Your task to perform on an android device: allow notifications from all sites in the chrome app Image 0: 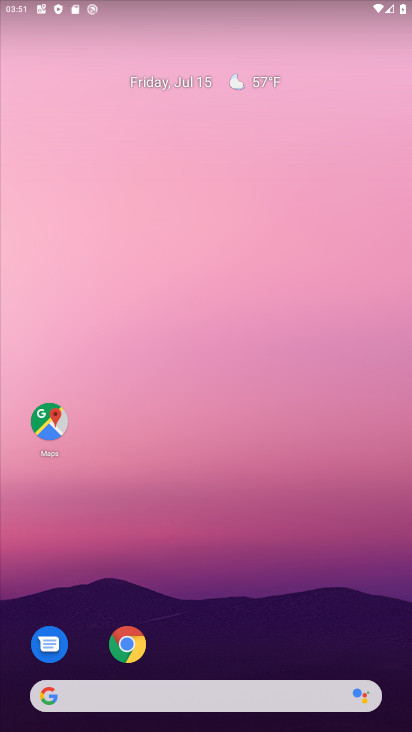
Step 0: drag from (316, 625) to (266, 114)
Your task to perform on an android device: allow notifications from all sites in the chrome app Image 1: 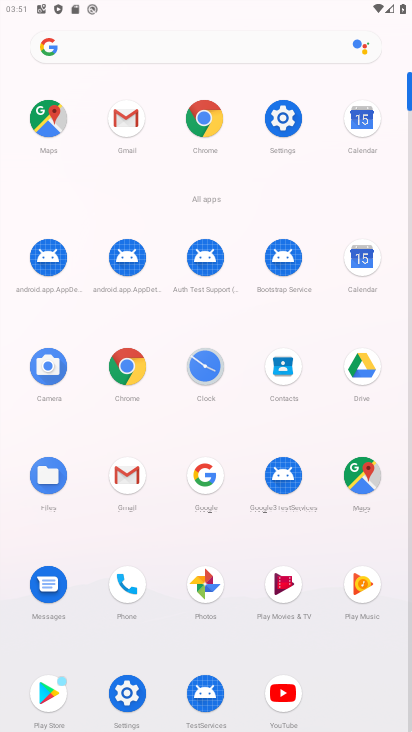
Step 1: click (204, 112)
Your task to perform on an android device: allow notifications from all sites in the chrome app Image 2: 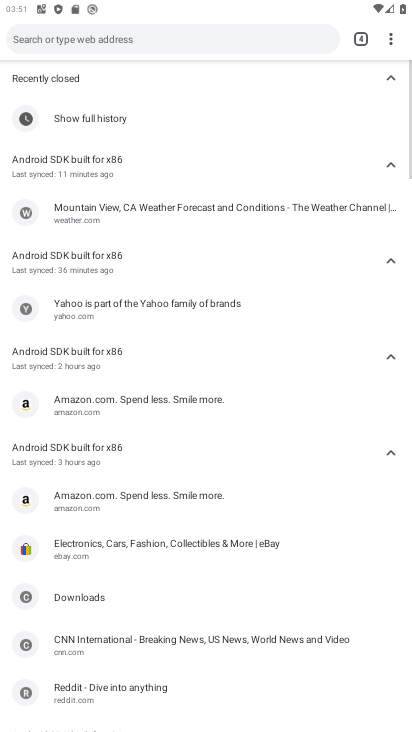
Step 2: click (392, 43)
Your task to perform on an android device: allow notifications from all sites in the chrome app Image 3: 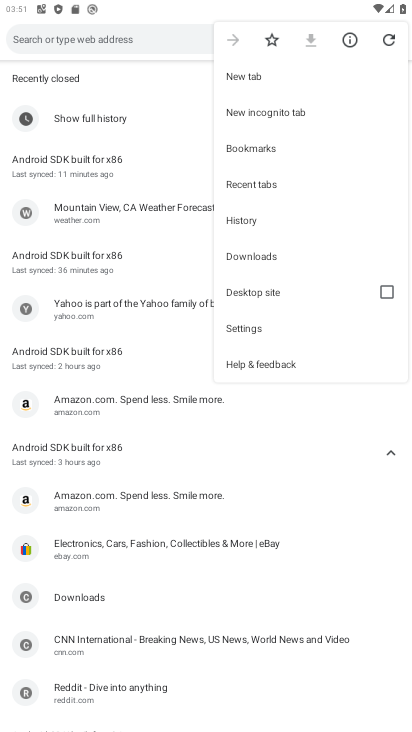
Step 3: click (306, 325)
Your task to perform on an android device: allow notifications from all sites in the chrome app Image 4: 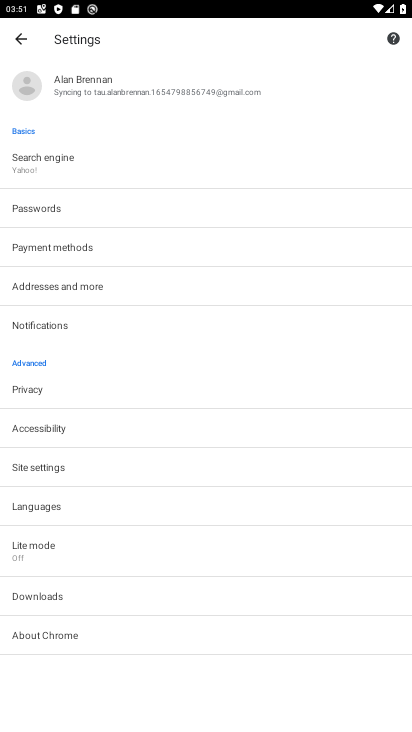
Step 4: click (81, 473)
Your task to perform on an android device: allow notifications from all sites in the chrome app Image 5: 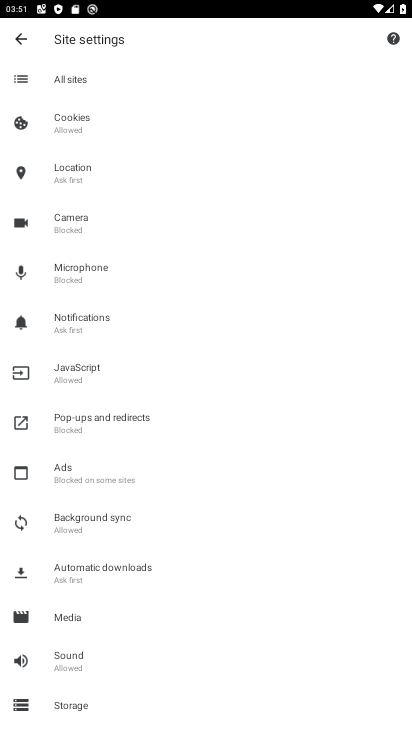
Step 5: click (168, 328)
Your task to perform on an android device: allow notifications from all sites in the chrome app Image 6: 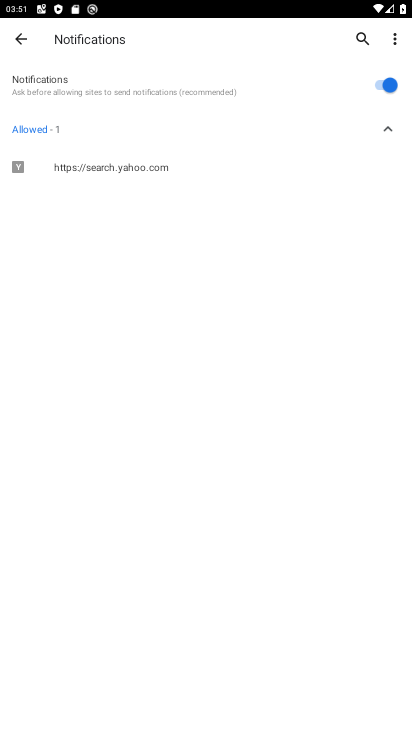
Step 6: task complete